Your task to perform on an android device: Open the Play Movies app and select the watchlist tab. Image 0: 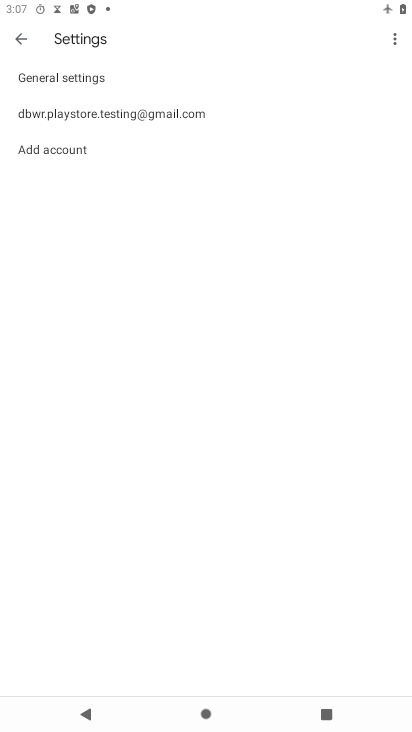
Step 0: press home button
Your task to perform on an android device: Open the Play Movies app and select the watchlist tab. Image 1: 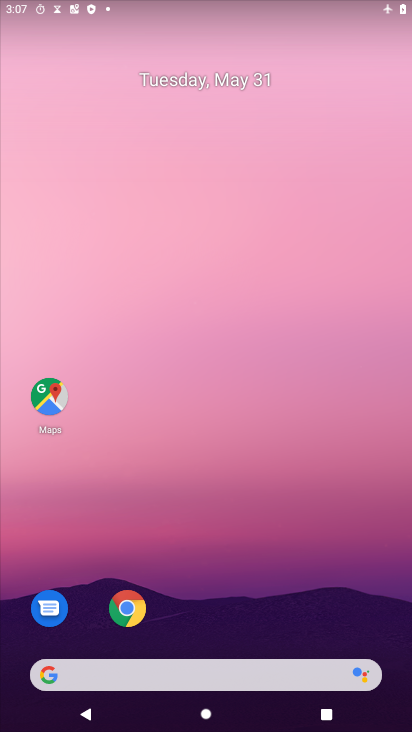
Step 1: drag from (182, 586) to (266, 47)
Your task to perform on an android device: Open the Play Movies app and select the watchlist tab. Image 2: 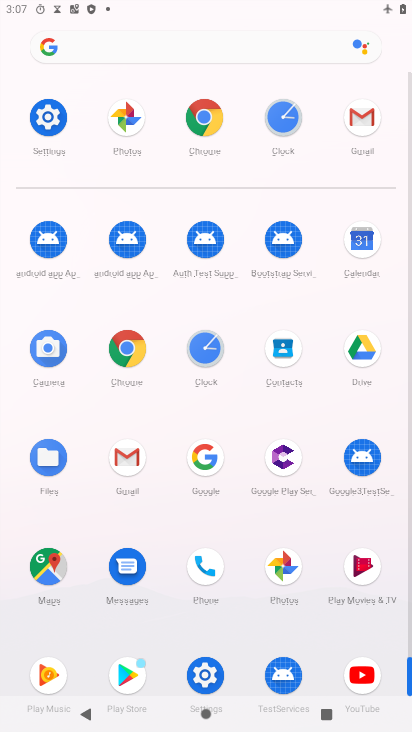
Step 2: click (368, 583)
Your task to perform on an android device: Open the Play Movies app and select the watchlist tab. Image 3: 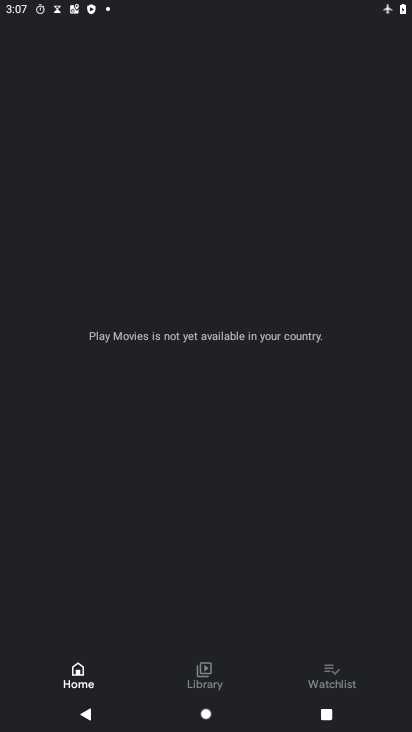
Step 3: click (334, 682)
Your task to perform on an android device: Open the Play Movies app and select the watchlist tab. Image 4: 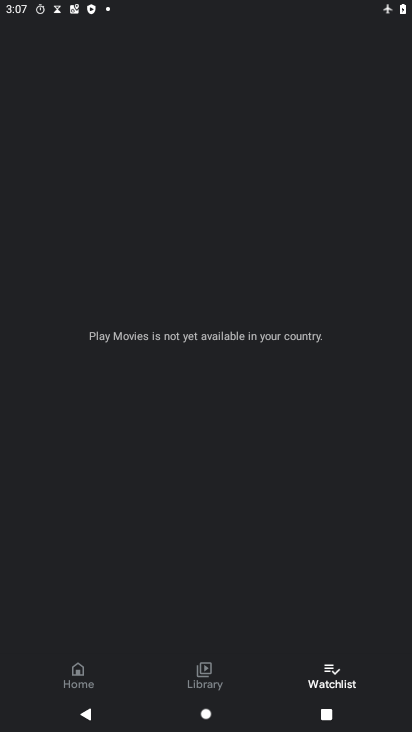
Step 4: task complete